Your task to perform on an android device: Open Chrome and go to settings Image 0: 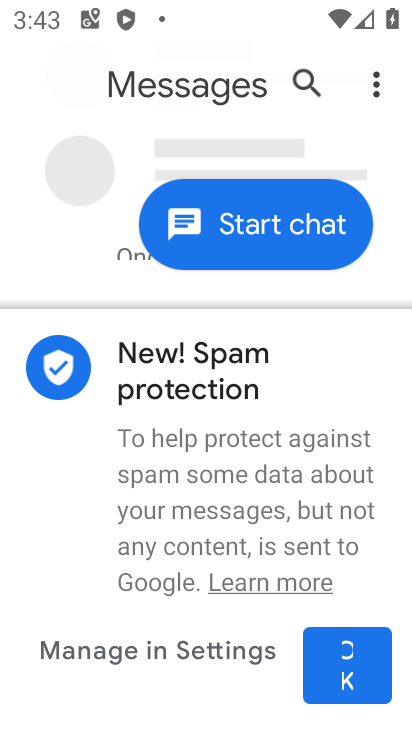
Step 0: press home button
Your task to perform on an android device: Open Chrome and go to settings Image 1: 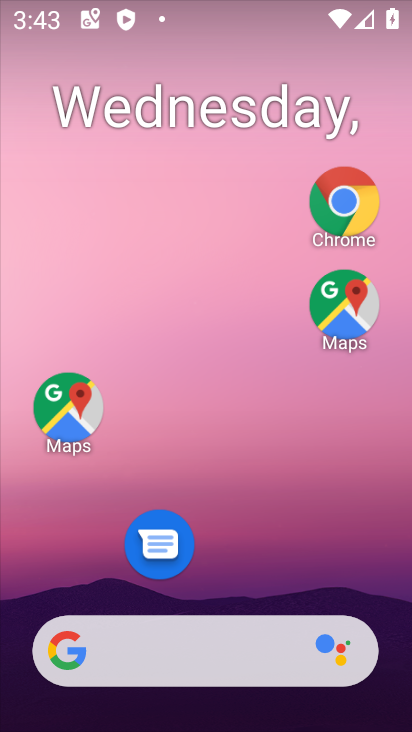
Step 1: drag from (233, 219) to (220, 118)
Your task to perform on an android device: Open Chrome and go to settings Image 2: 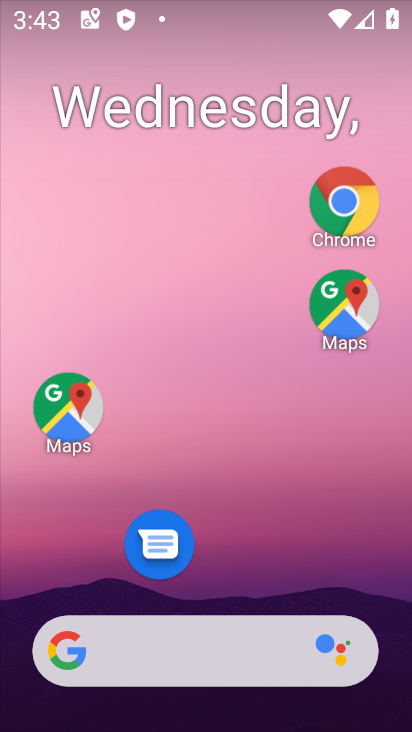
Step 2: drag from (219, 358) to (244, 11)
Your task to perform on an android device: Open Chrome and go to settings Image 3: 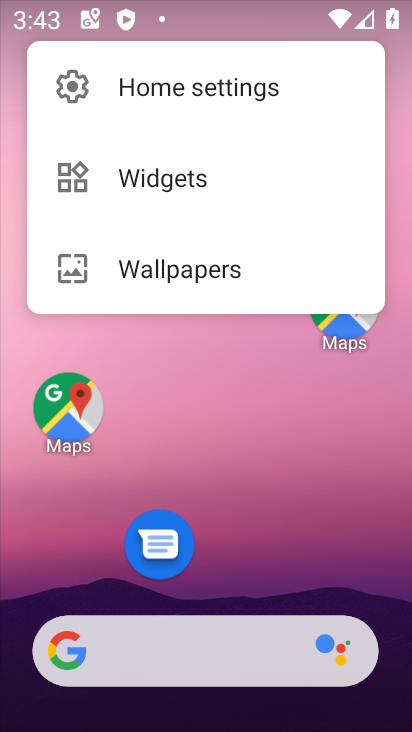
Step 3: drag from (228, 551) to (224, 90)
Your task to perform on an android device: Open Chrome and go to settings Image 4: 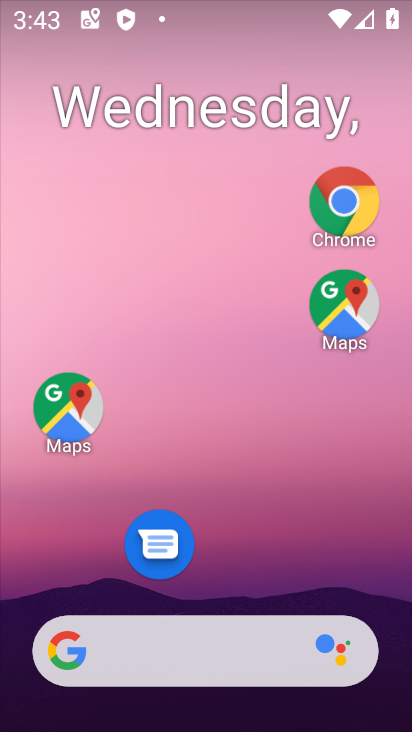
Step 4: click (235, 489)
Your task to perform on an android device: Open Chrome and go to settings Image 5: 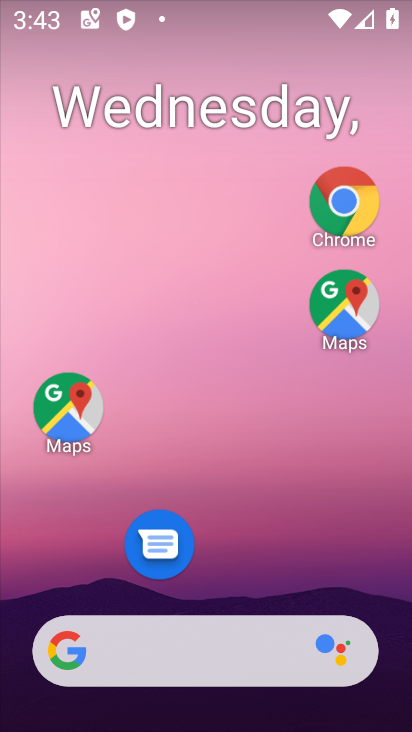
Step 5: drag from (236, 583) to (229, 4)
Your task to perform on an android device: Open Chrome and go to settings Image 6: 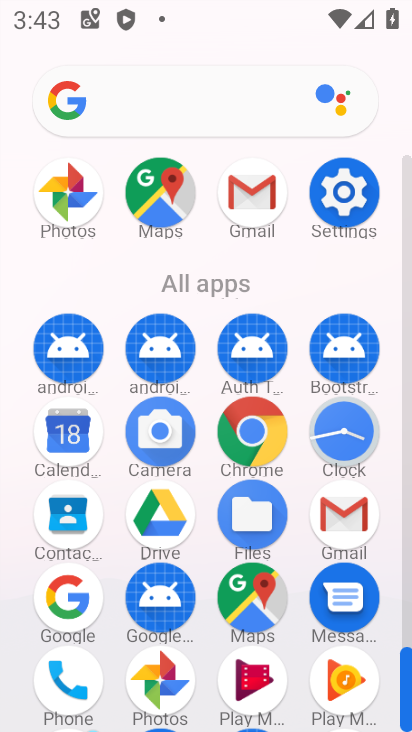
Step 6: drag from (195, 594) to (186, 221)
Your task to perform on an android device: Open Chrome and go to settings Image 7: 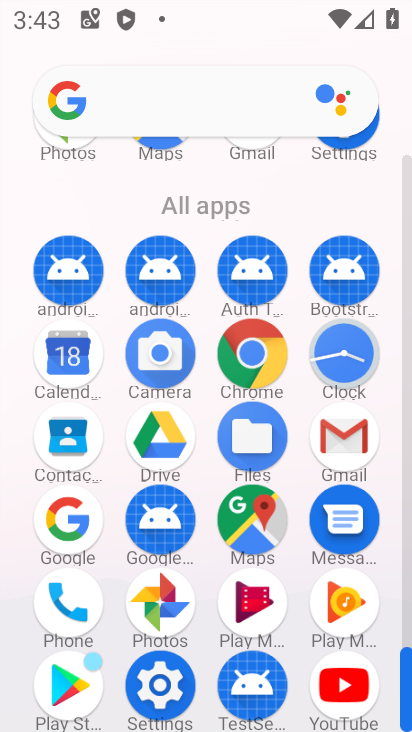
Step 7: click (261, 367)
Your task to perform on an android device: Open Chrome and go to settings Image 8: 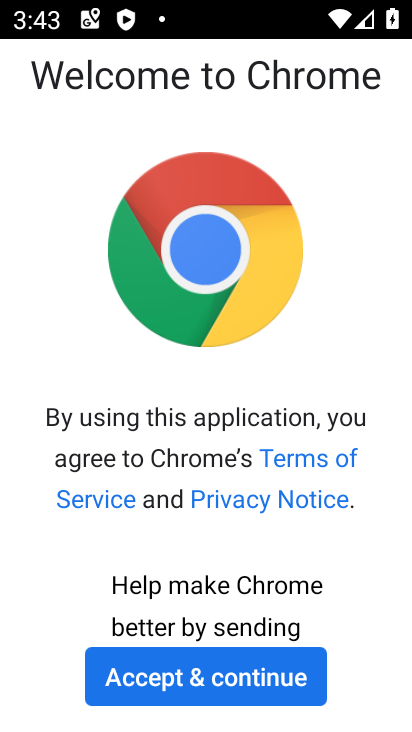
Step 8: click (226, 671)
Your task to perform on an android device: Open Chrome and go to settings Image 9: 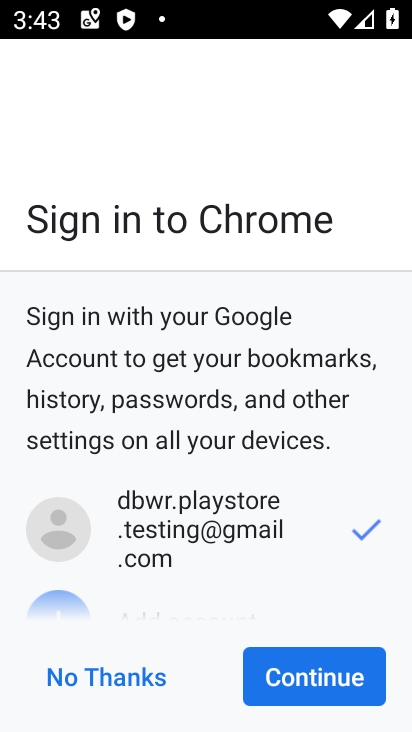
Step 9: click (329, 679)
Your task to perform on an android device: Open Chrome and go to settings Image 10: 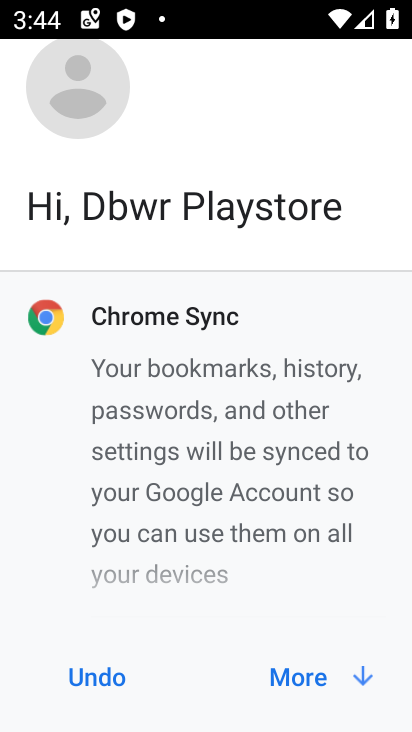
Step 10: click (279, 683)
Your task to perform on an android device: Open Chrome and go to settings Image 11: 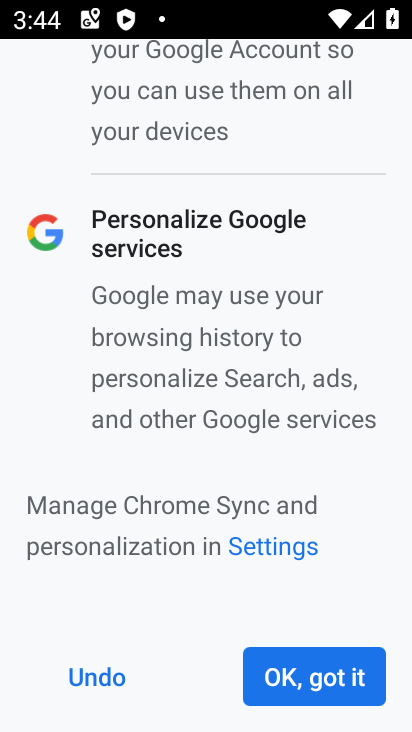
Step 11: click (287, 674)
Your task to perform on an android device: Open Chrome and go to settings Image 12: 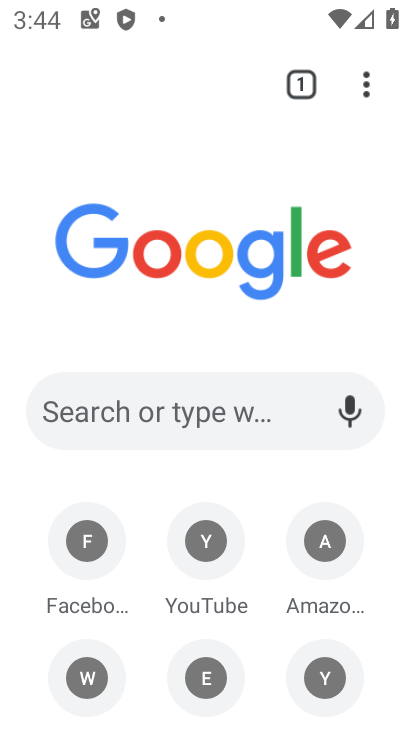
Step 12: click (366, 84)
Your task to perform on an android device: Open Chrome and go to settings Image 13: 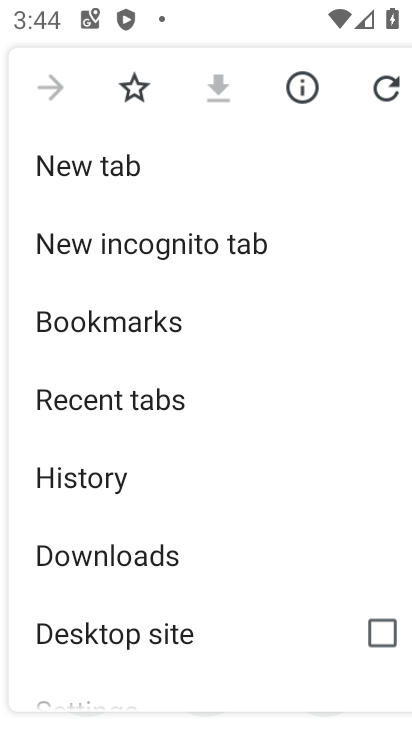
Step 13: drag from (178, 456) to (217, 332)
Your task to perform on an android device: Open Chrome and go to settings Image 14: 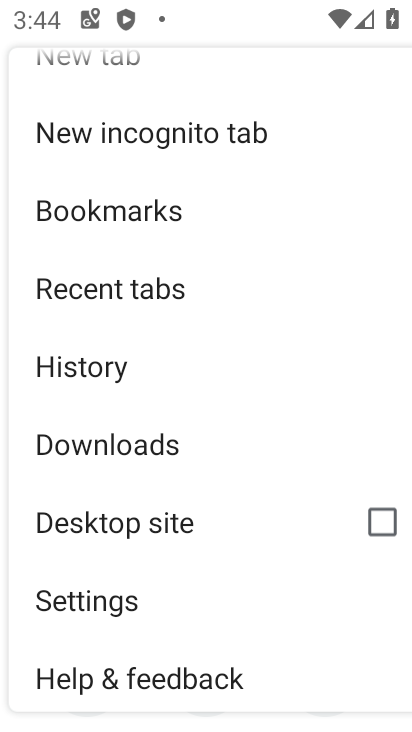
Step 14: click (128, 593)
Your task to perform on an android device: Open Chrome and go to settings Image 15: 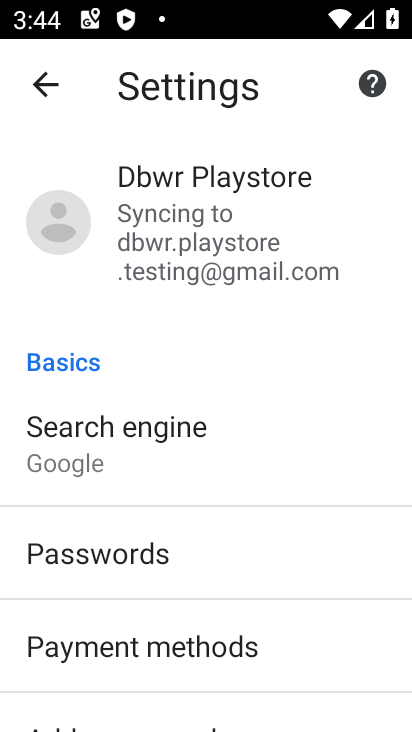
Step 15: task complete